Your task to perform on an android device: turn on priority inbox in the gmail app Image 0: 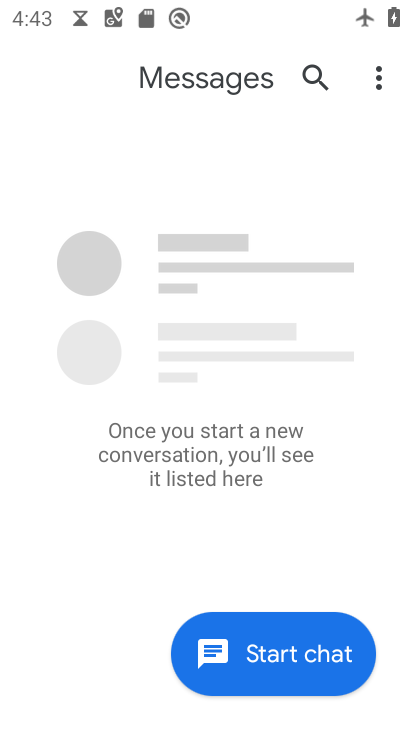
Step 0: press back button
Your task to perform on an android device: turn on priority inbox in the gmail app Image 1: 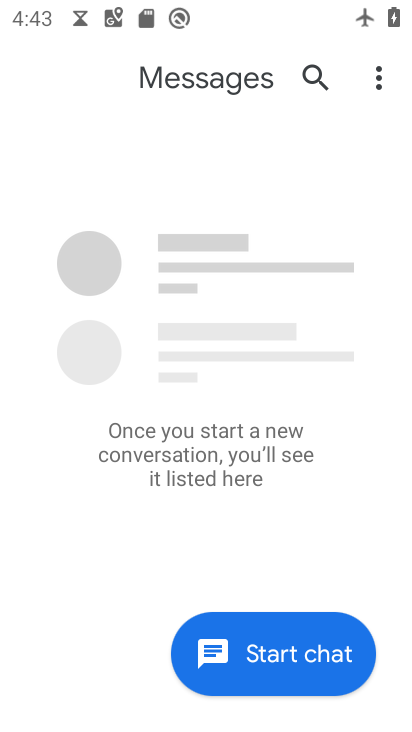
Step 1: press home button
Your task to perform on an android device: turn on priority inbox in the gmail app Image 2: 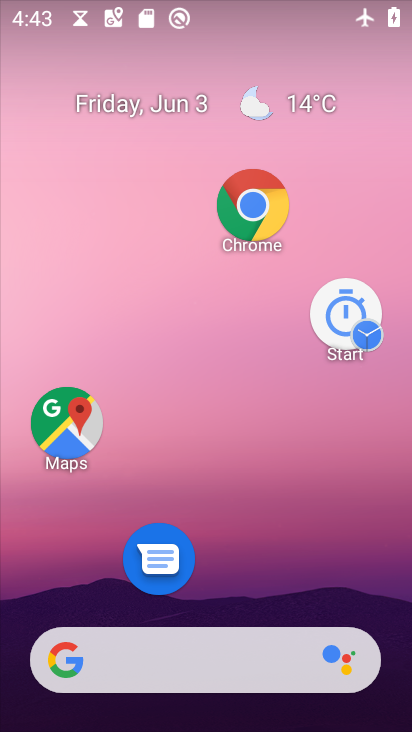
Step 2: drag from (243, 635) to (119, 121)
Your task to perform on an android device: turn on priority inbox in the gmail app Image 3: 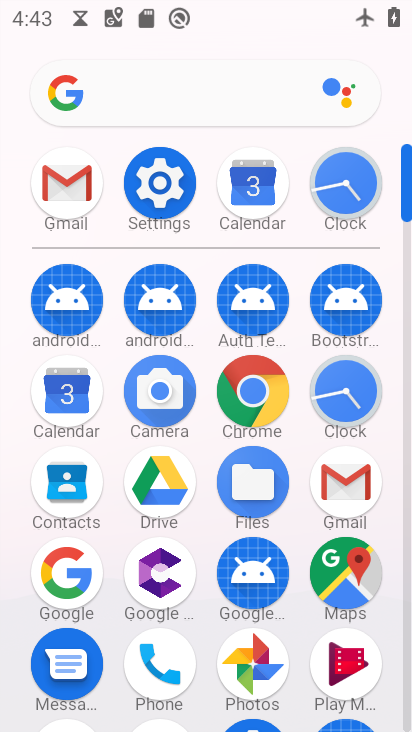
Step 3: click (352, 483)
Your task to perform on an android device: turn on priority inbox in the gmail app Image 4: 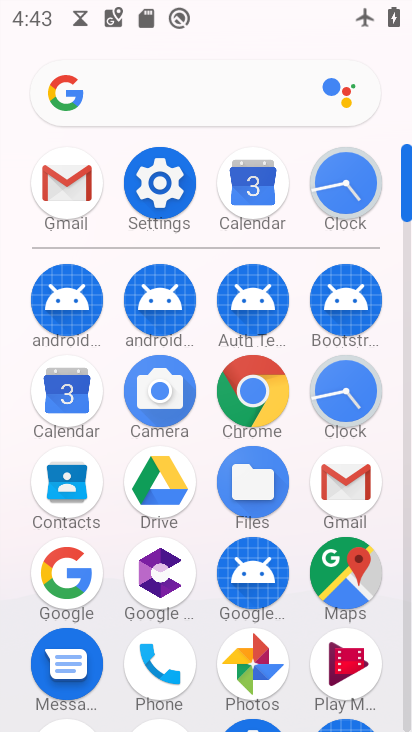
Step 4: click (351, 483)
Your task to perform on an android device: turn on priority inbox in the gmail app Image 5: 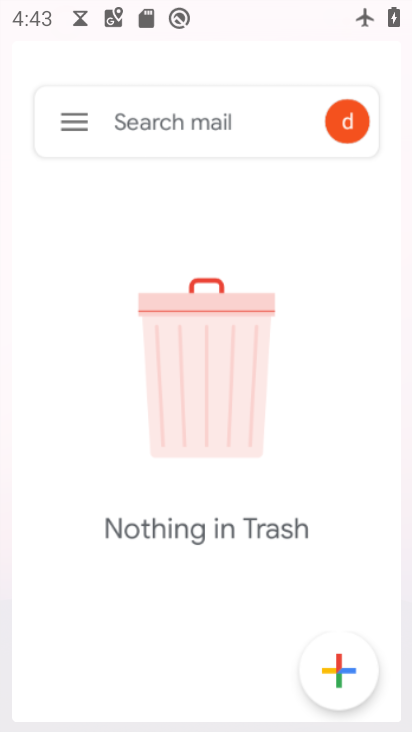
Step 5: click (351, 483)
Your task to perform on an android device: turn on priority inbox in the gmail app Image 6: 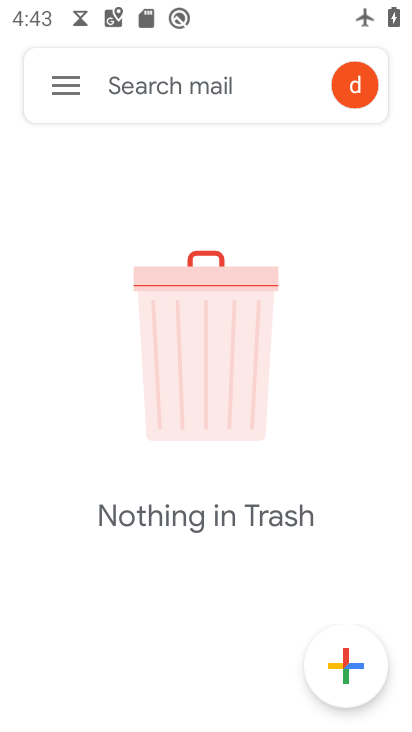
Step 6: click (351, 481)
Your task to perform on an android device: turn on priority inbox in the gmail app Image 7: 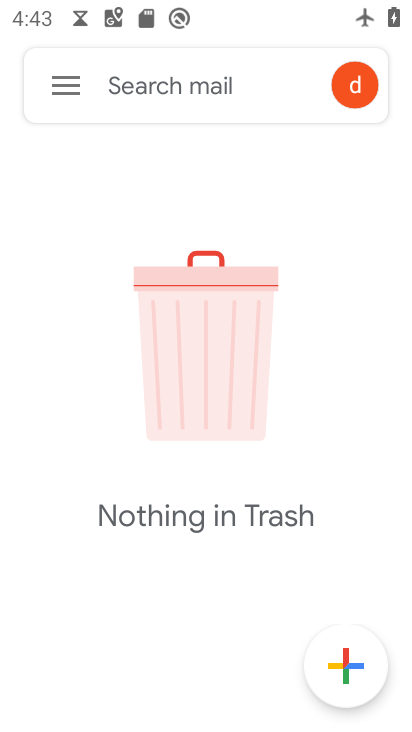
Step 7: click (63, 79)
Your task to perform on an android device: turn on priority inbox in the gmail app Image 8: 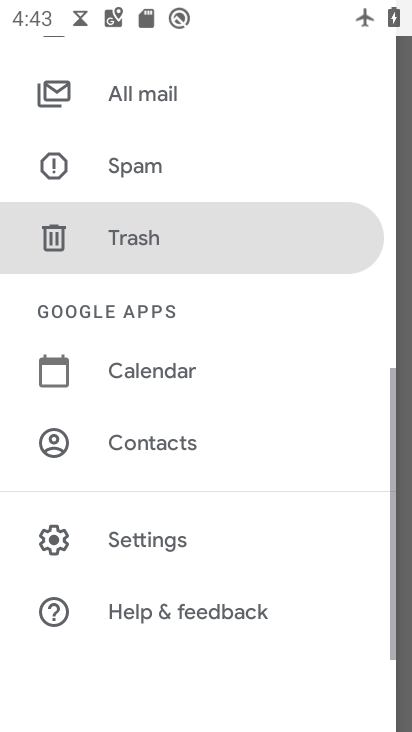
Step 8: click (153, 535)
Your task to perform on an android device: turn on priority inbox in the gmail app Image 9: 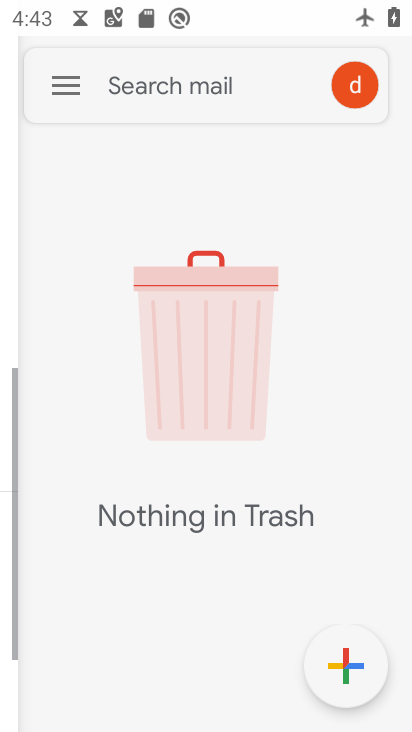
Step 9: click (148, 533)
Your task to perform on an android device: turn on priority inbox in the gmail app Image 10: 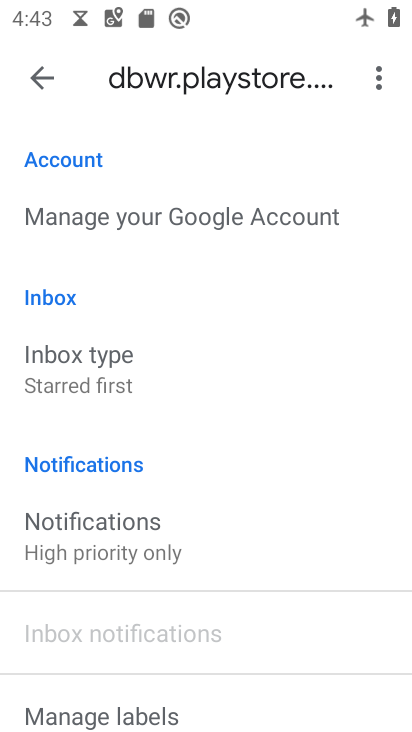
Step 10: click (57, 374)
Your task to perform on an android device: turn on priority inbox in the gmail app Image 11: 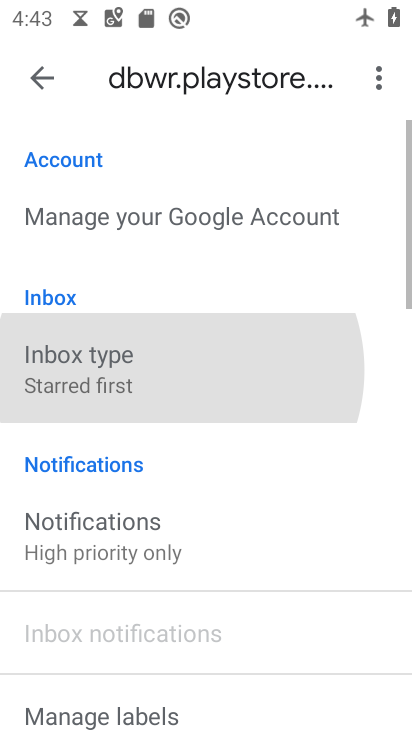
Step 11: click (57, 374)
Your task to perform on an android device: turn on priority inbox in the gmail app Image 12: 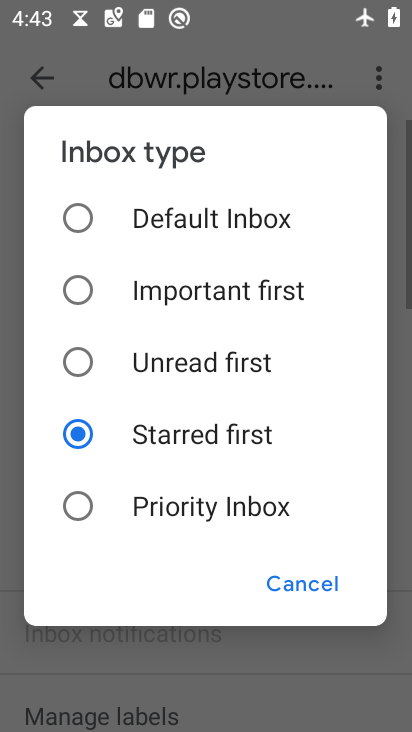
Step 12: click (82, 504)
Your task to perform on an android device: turn on priority inbox in the gmail app Image 13: 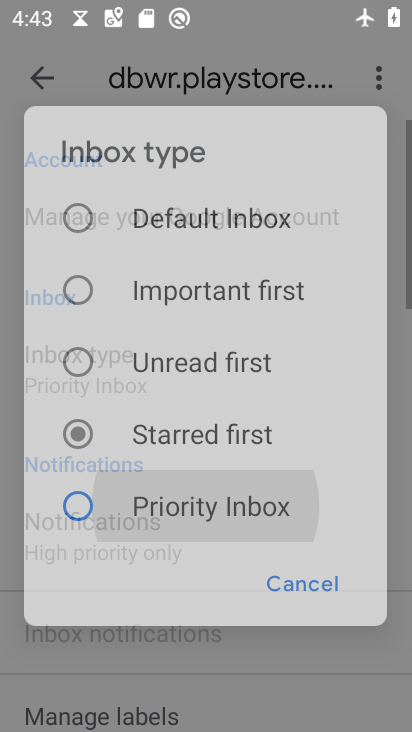
Step 13: click (82, 504)
Your task to perform on an android device: turn on priority inbox in the gmail app Image 14: 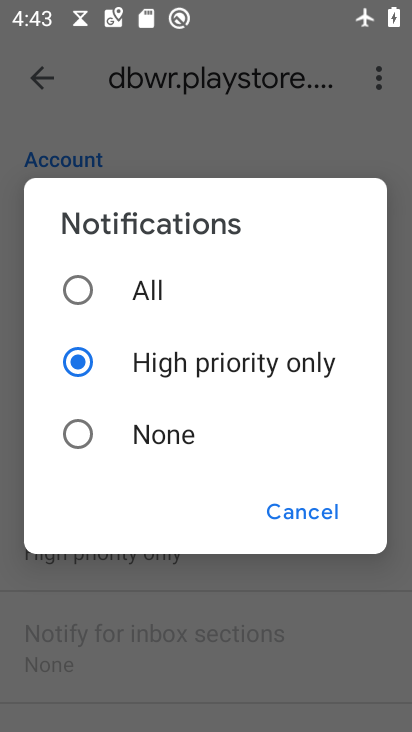
Step 14: click (296, 515)
Your task to perform on an android device: turn on priority inbox in the gmail app Image 15: 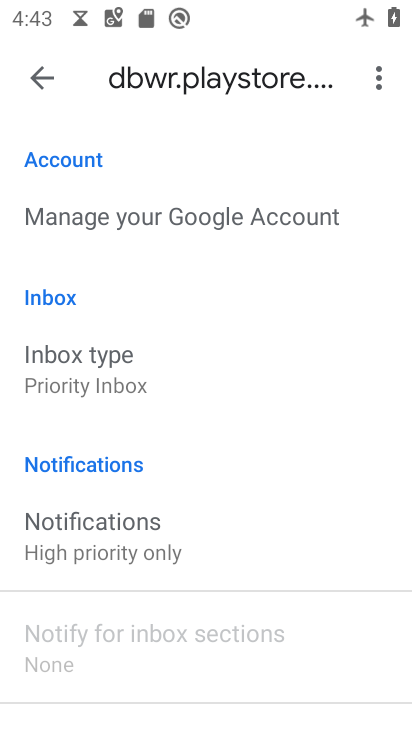
Step 15: task complete